Your task to perform on an android device: see creations saved in the google photos Image 0: 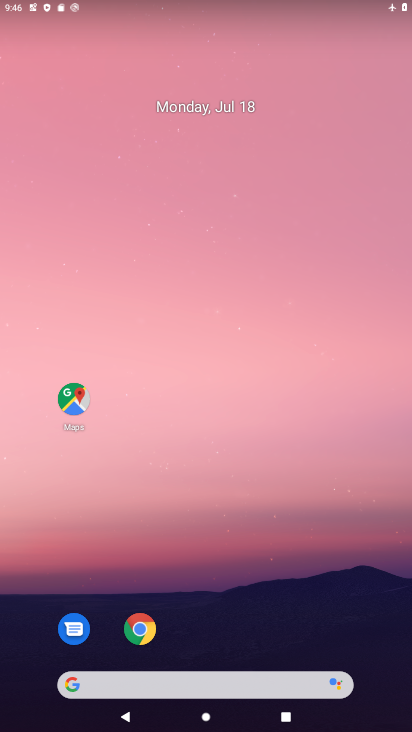
Step 0: drag from (285, 422) to (257, 77)
Your task to perform on an android device: see creations saved in the google photos Image 1: 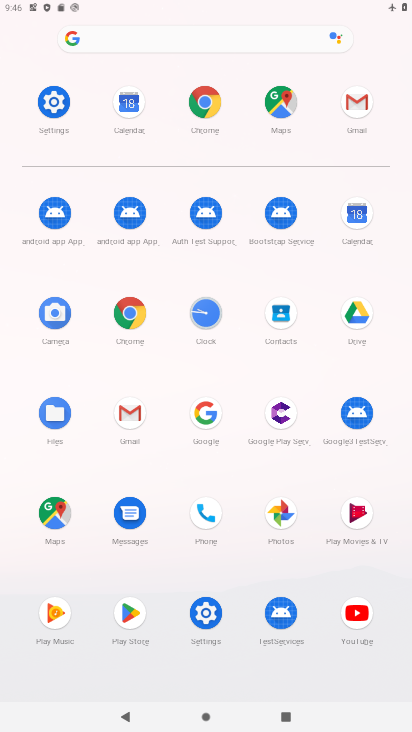
Step 1: click (290, 510)
Your task to perform on an android device: see creations saved in the google photos Image 2: 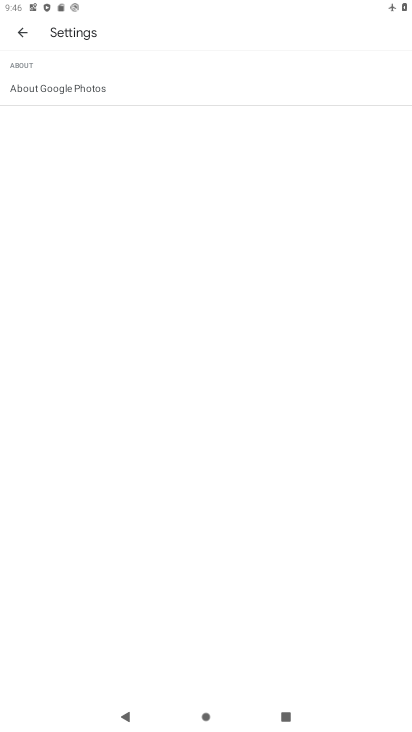
Step 2: click (26, 35)
Your task to perform on an android device: see creations saved in the google photos Image 3: 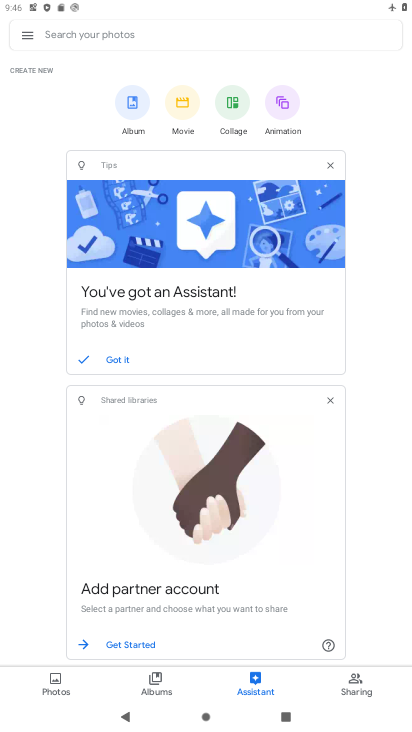
Step 3: click (162, 683)
Your task to perform on an android device: see creations saved in the google photos Image 4: 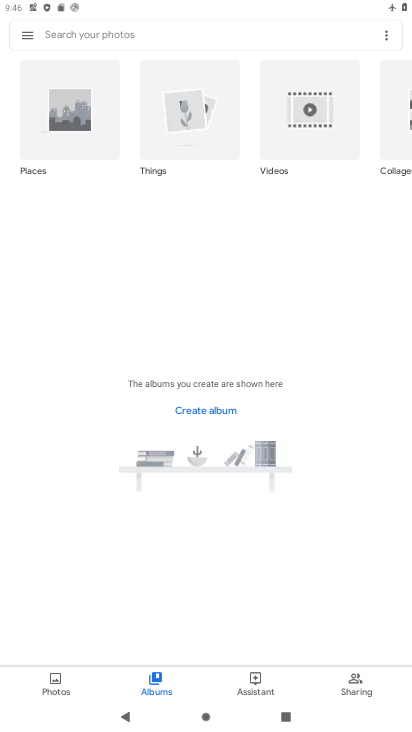
Step 4: click (58, 680)
Your task to perform on an android device: see creations saved in the google photos Image 5: 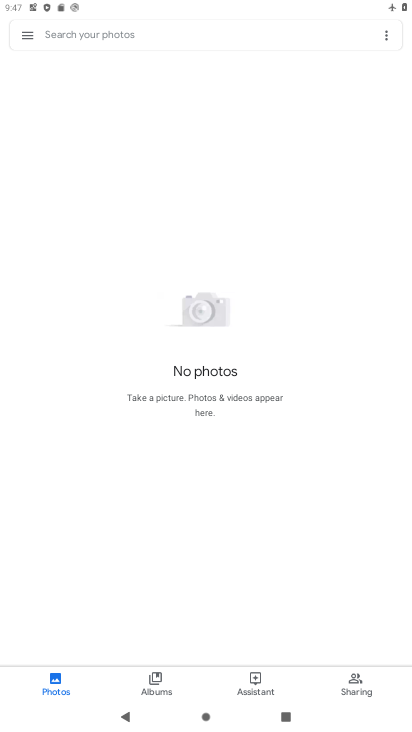
Step 5: task complete